Your task to perform on an android device: turn off priority inbox in the gmail app Image 0: 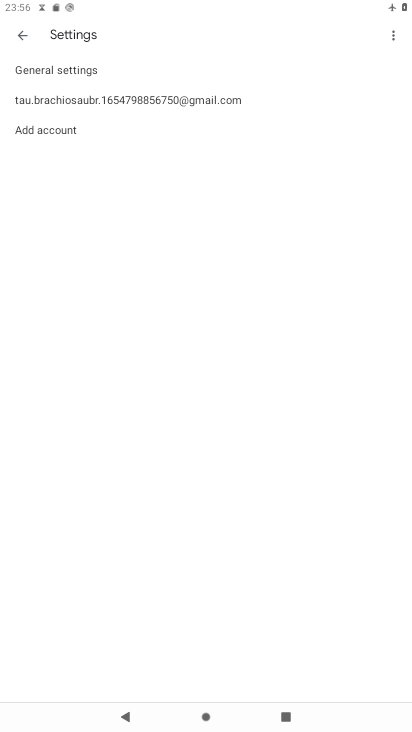
Step 0: drag from (233, 650) to (229, 511)
Your task to perform on an android device: turn off priority inbox in the gmail app Image 1: 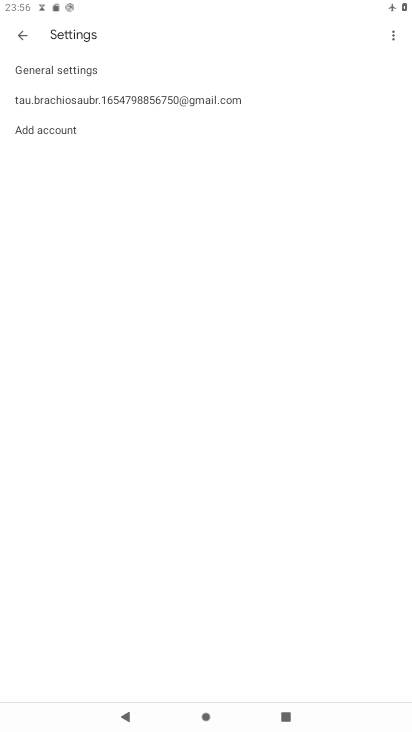
Step 1: press home button
Your task to perform on an android device: turn off priority inbox in the gmail app Image 2: 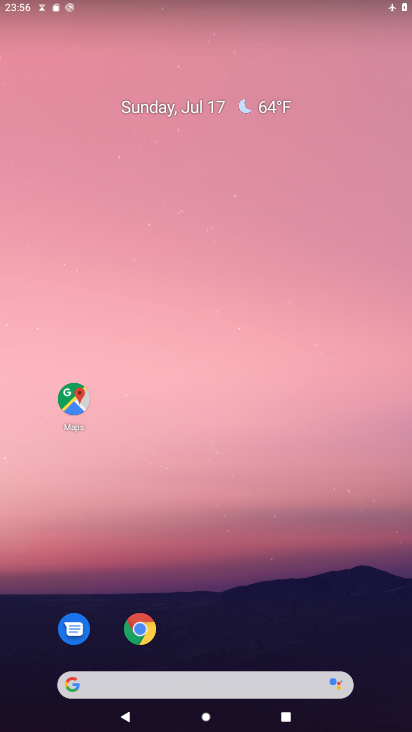
Step 2: drag from (280, 626) to (248, 182)
Your task to perform on an android device: turn off priority inbox in the gmail app Image 3: 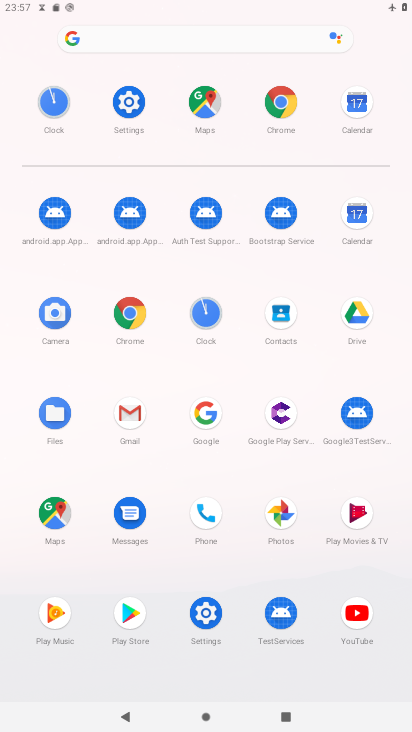
Step 3: click (141, 409)
Your task to perform on an android device: turn off priority inbox in the gmail app Image 4: 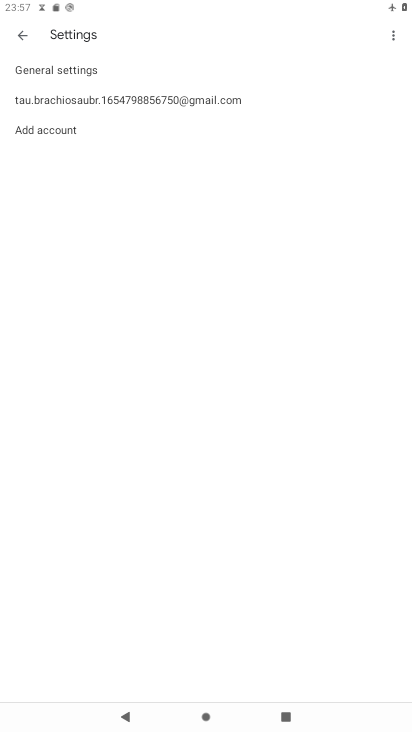
Step 4: click (68, 97)
Your task to perform on an android device: turn off priority inbox in the gmail app Image 5: 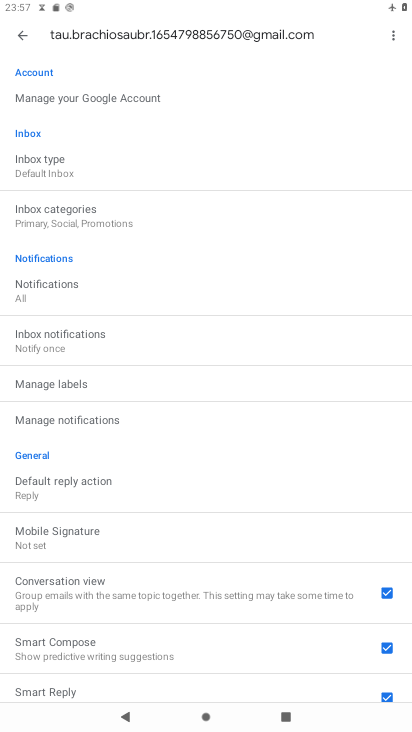
Step 5: click (72, 161)
Your task to perform on an android device: turn off priority inbox in the gmail app Image 6: 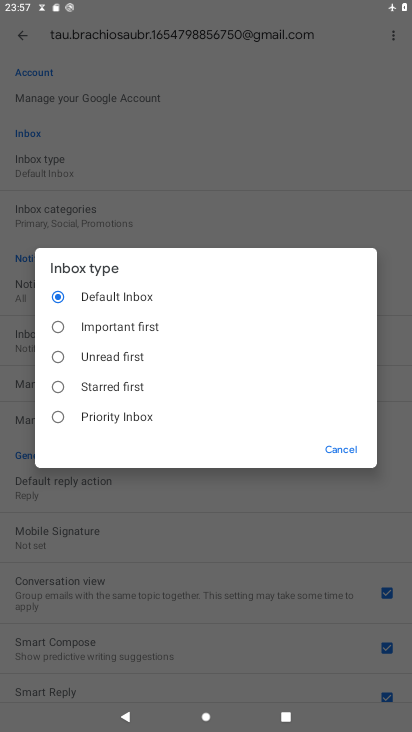
Step 6: task complete